Your task to perform on an android device: Open wifi settings Image 0: 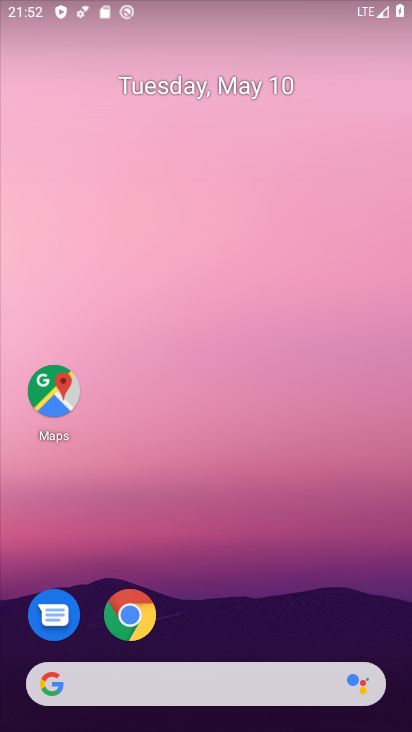
Step 0: drag from (69, 7) to (202, 588)
Your task to perform on an android device: Open wifi settings Image 1: 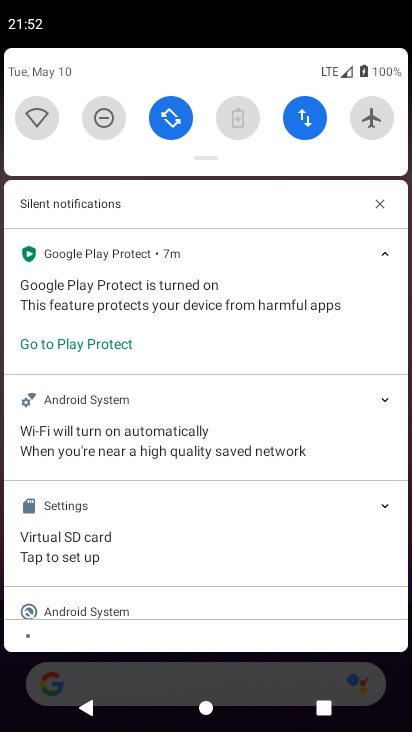
Step 1: click (37, 112)
Your task to perform on an android device: Open wifi settings Image 2: 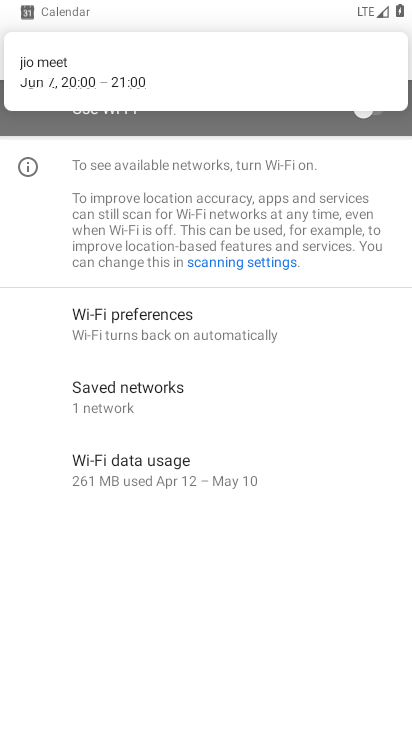
Step 2: task complete